Your task to perform on an android device: set the timer Image 0: 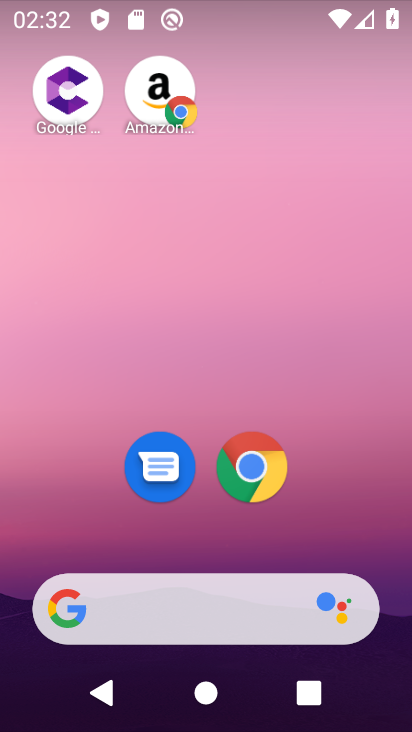
Step 0: drag from (291, 509) to (261, 151)
Your task to perform on an android device: set the timer Image 1: 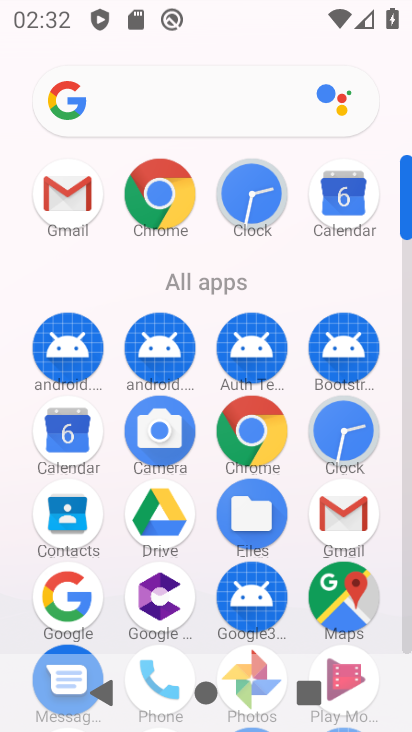
Step 1: click (366, 437)
Your task to perform on an android device: set the timer Image 2: 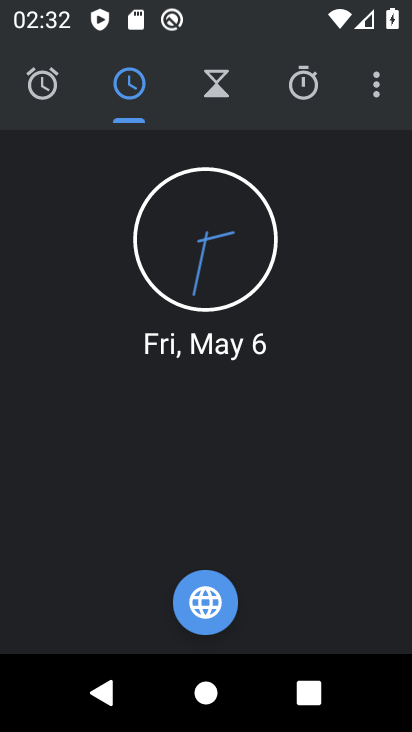
Step 2: click (242, 104)
Your task to perform on an android device: set the timer Image 3: 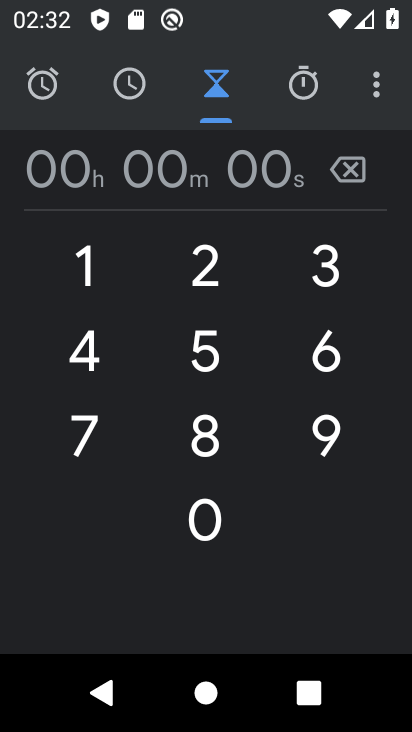
Step 3: click (206, 259)
Your task to perform on an android device: set the timer Image 4: 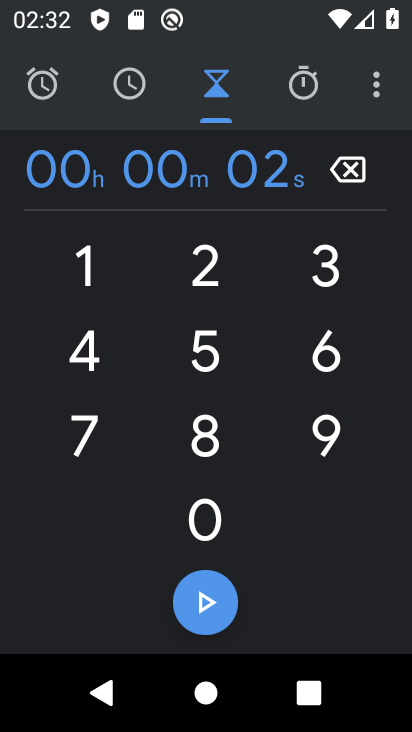
Step 4: click (209, 340)
Your task to perform on an android device: set the timer Image 5: 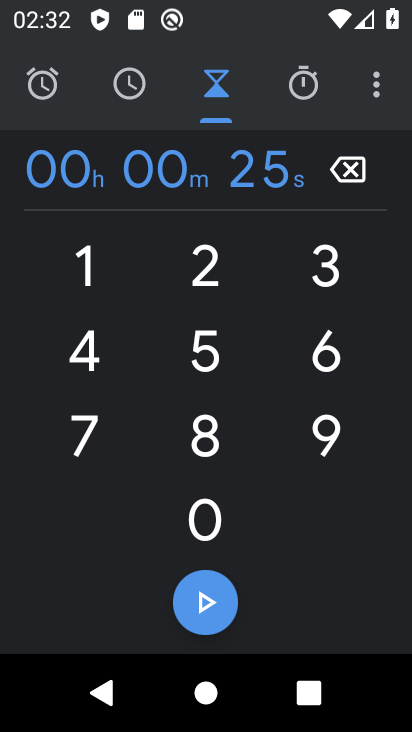
Step 5: click (223, 581)
Your task to perform on an android device: set the timer Image 6: 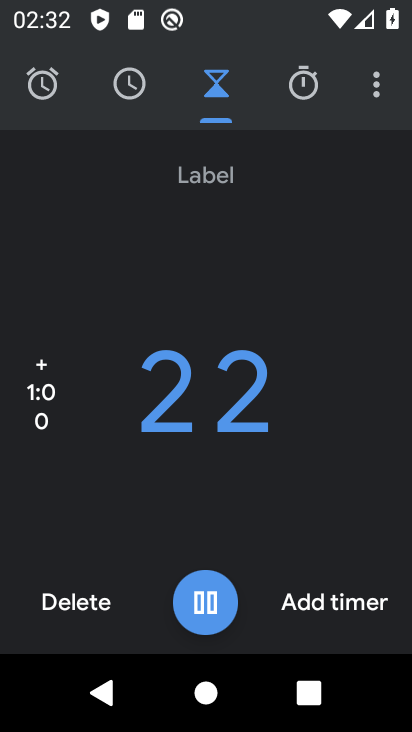
Step 6: task complete